Your task to perform on an android device: Is it going to rain this weekend? Image 0: 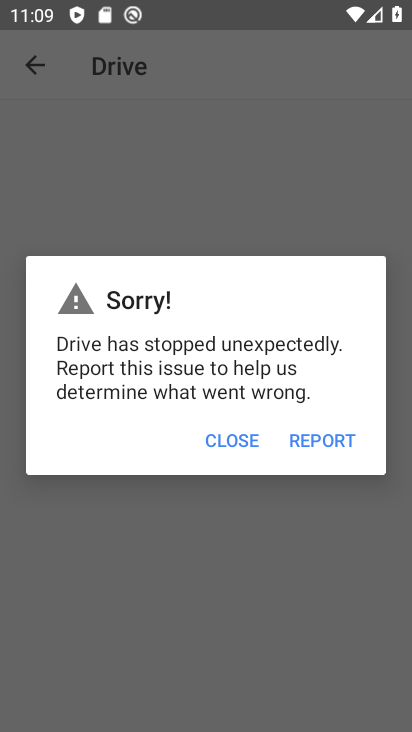
Step 0: press home button
Your task to perform on an android device: Is it going to rain this weekend? Image 1: 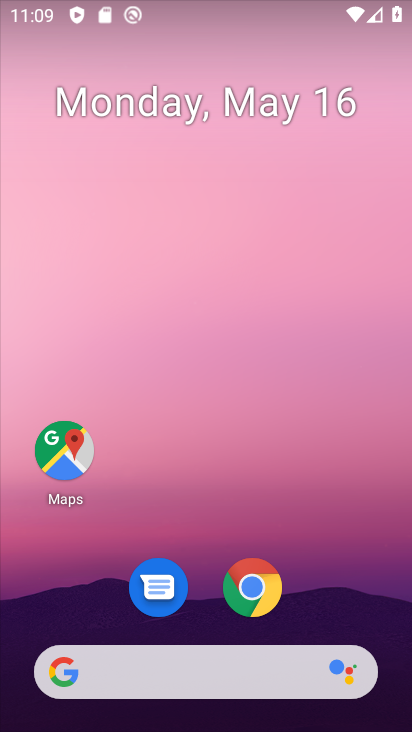
Step 1: click (226, 581)
Your task to perform on an android device: Is it going to rain this weekend? Image 2: 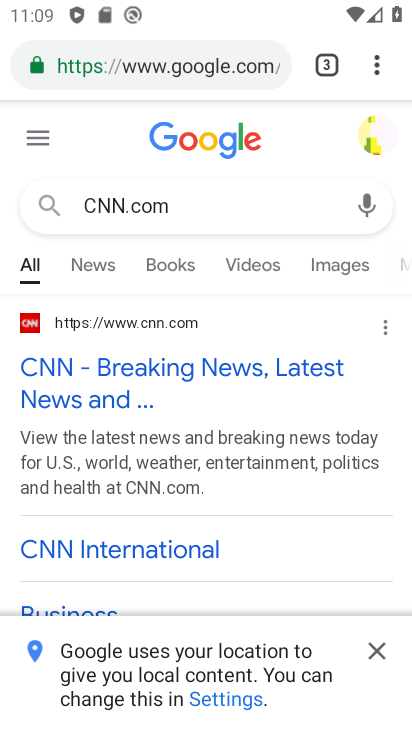
Step 2: click (363, 62)
Your task to perform on an android device: Is it going to rain this weekend? Image 3: 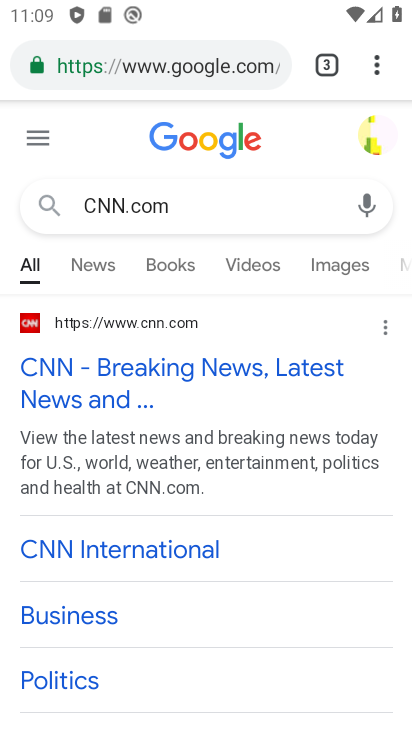
Step 3: click (364, 61)
Your task to perform on an android device: Is it going to rain this weekend? Image 4: 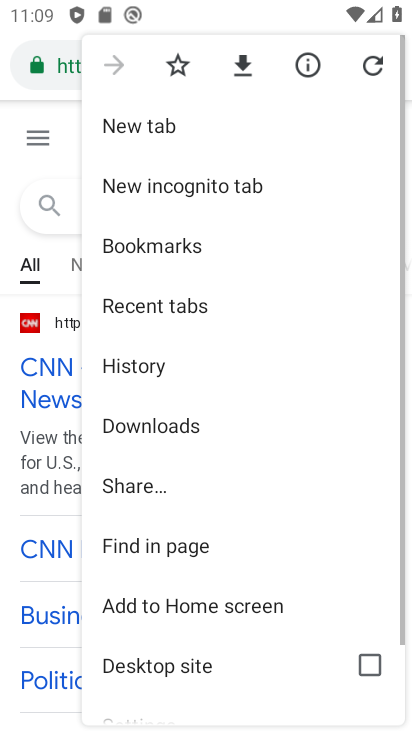
Step 4: click (203, 125)
Your task to perform on an android device: Is it going to rain this weekend? Image 5: 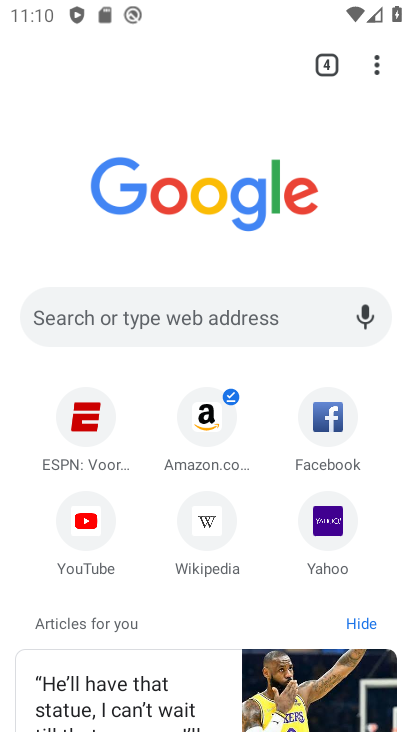
Step 5: click (126, 310)
Your task to perform on an android device: Is it going to rain this weekend? Image 6: 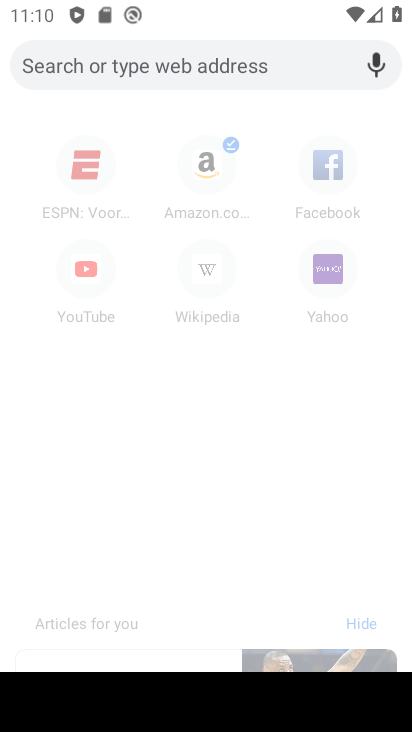
Step 6: type "Is it going to rain this weekend?"
Your task to perform on an android device: Is it going to rain this weekend? Image 7: 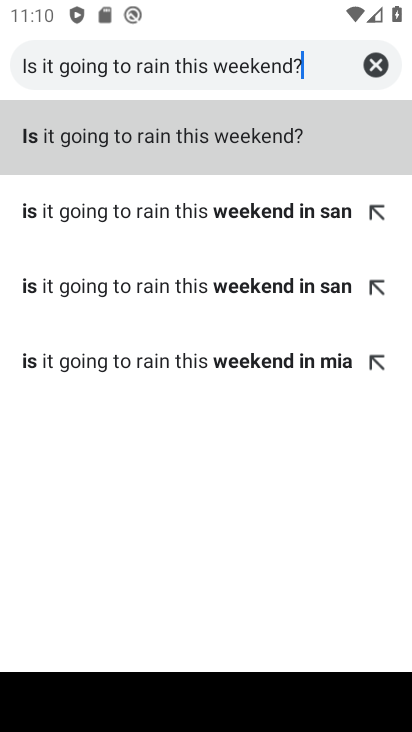
Step 7: click (282, 122)
Your task to perform on an android device: Is it going to rain this weekend? Image 8: 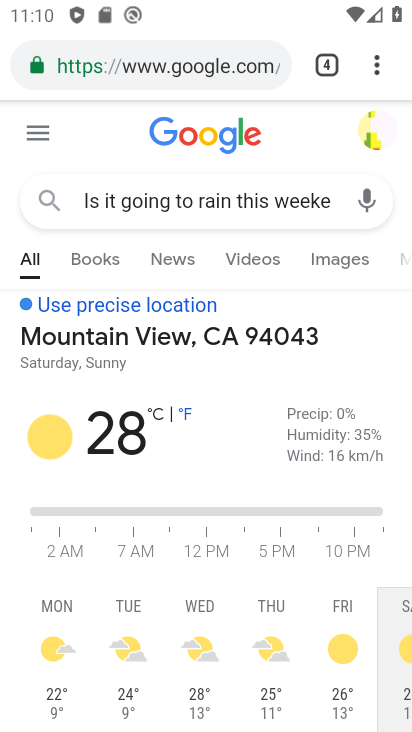
Step 8: task complete